Your task to perform on an android device: Show me the alarms in the clock app Image 0: 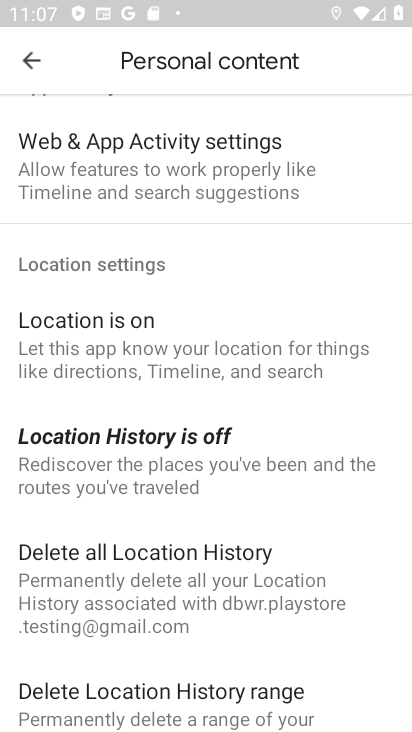
Step 0: press home button
Your task to perform on an android device: Show me the alarms in the clock app Image 1: 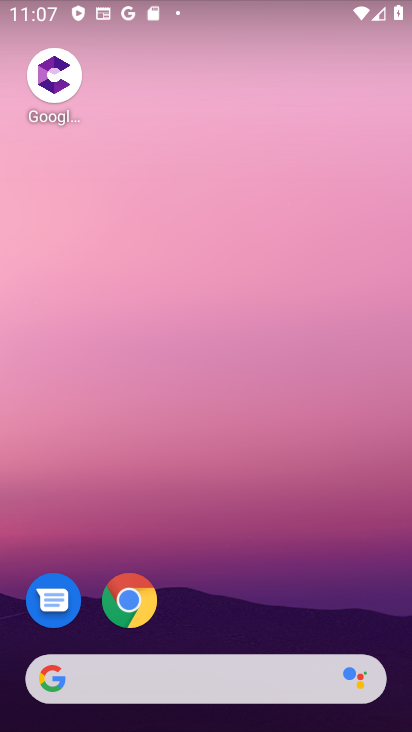
Step 1: drag from (189, 502) to (244, 17)
Your task to perform on an android device: Show me the alarms in the clock app Image 2: 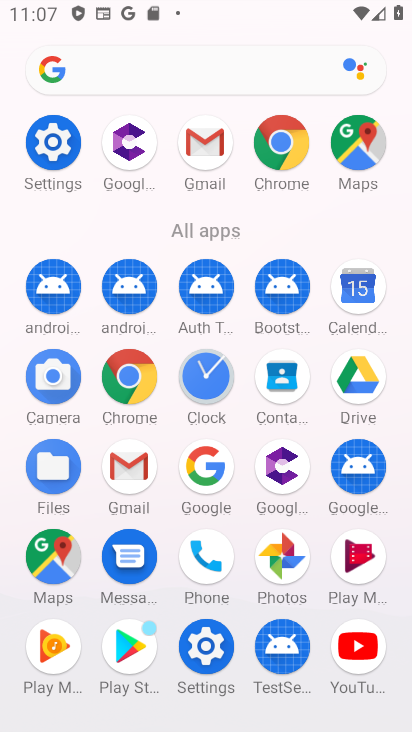
Step 2: click (207, 376)
Your task to perform on an android device: Show me the alarms in the clock app Image 3: 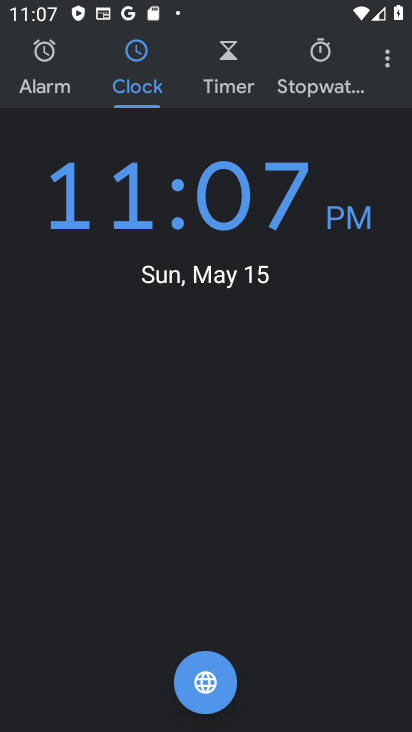
Step 3: click (53, 65)
Your task to perform on an android device: Show me the alarms in the clock app Image 4: 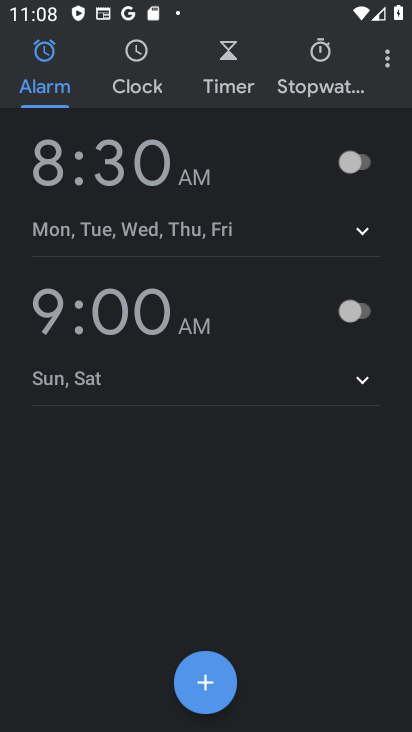
Step 4: task complete